Your task to perform on an android device: When is my next meeting? Image 0: 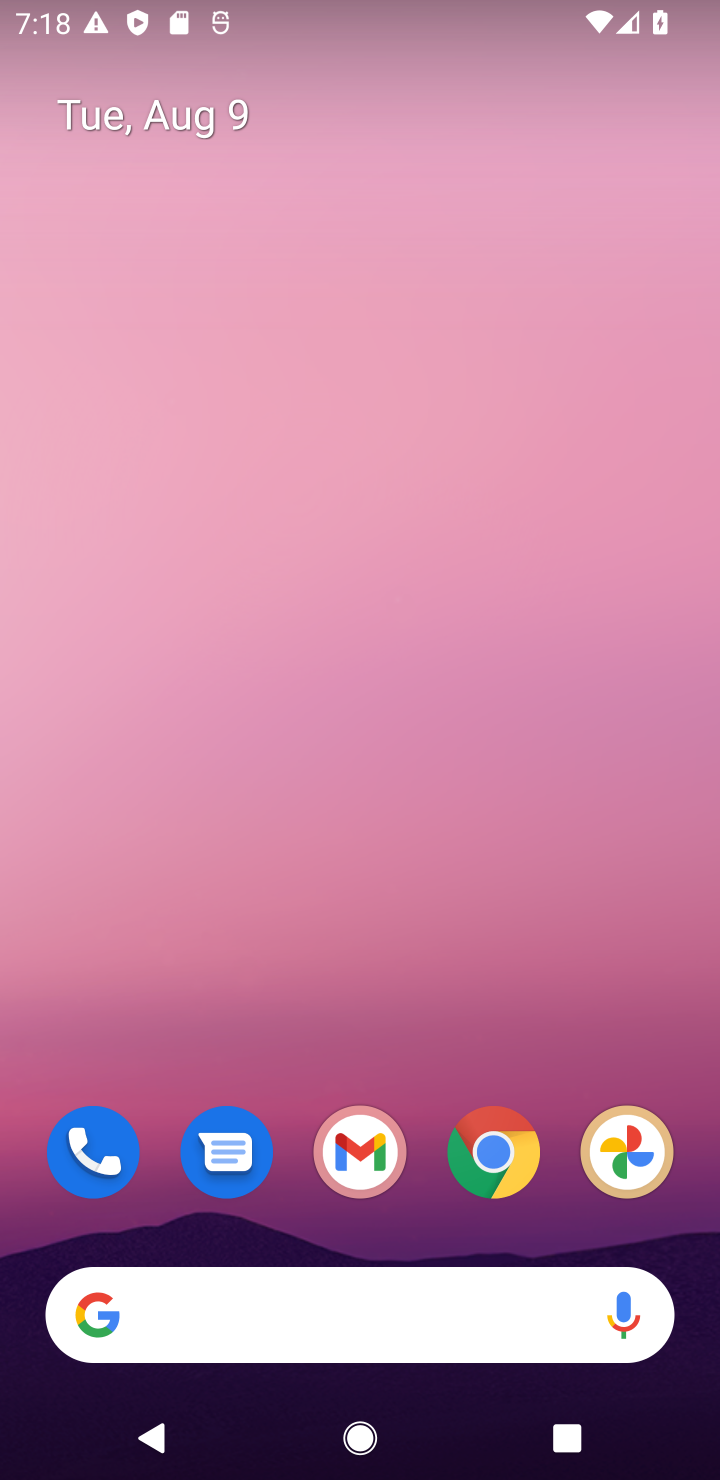
Step 0: click (134, 129)
Your task to perform on an android device: When is my next meeting? Image 1: 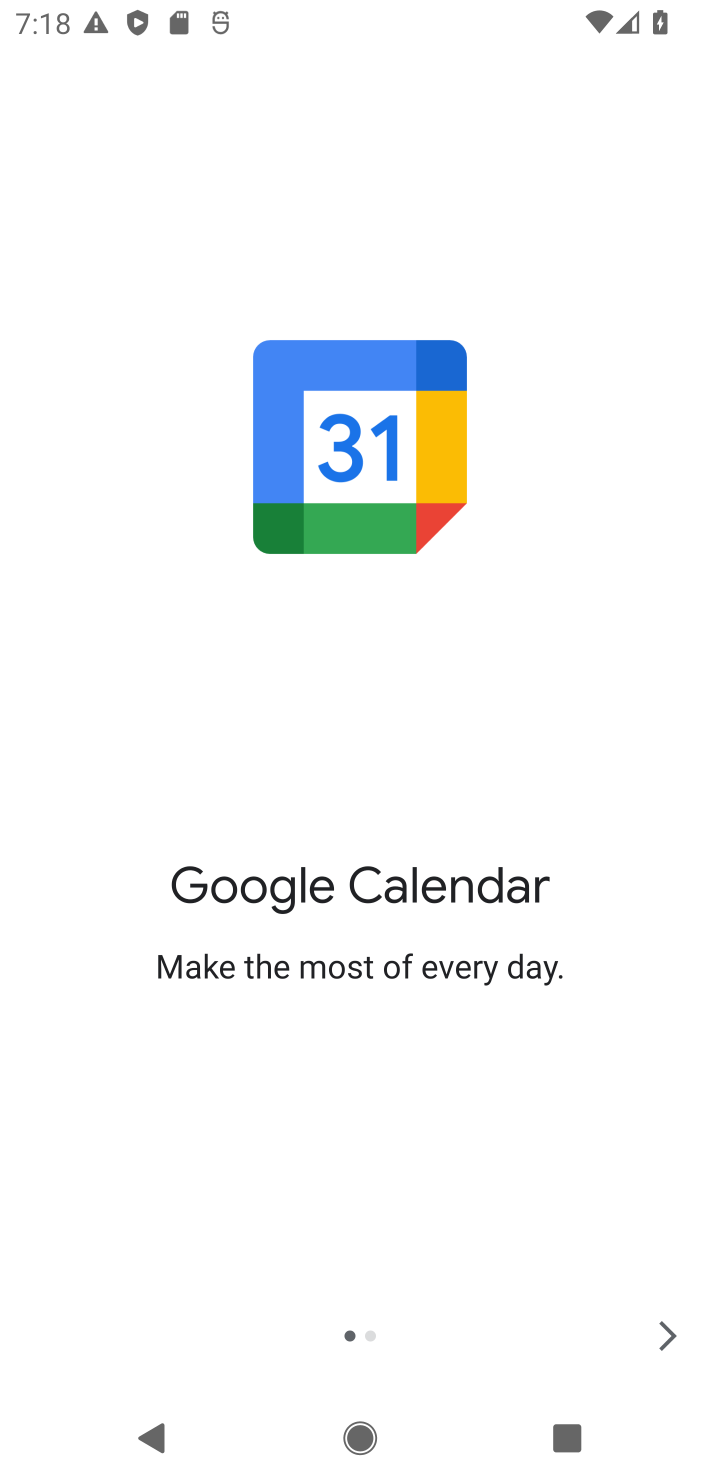
Step 1: click (670, 1332)
Your task to perform on an android device: When is my next meeting? Image 2: 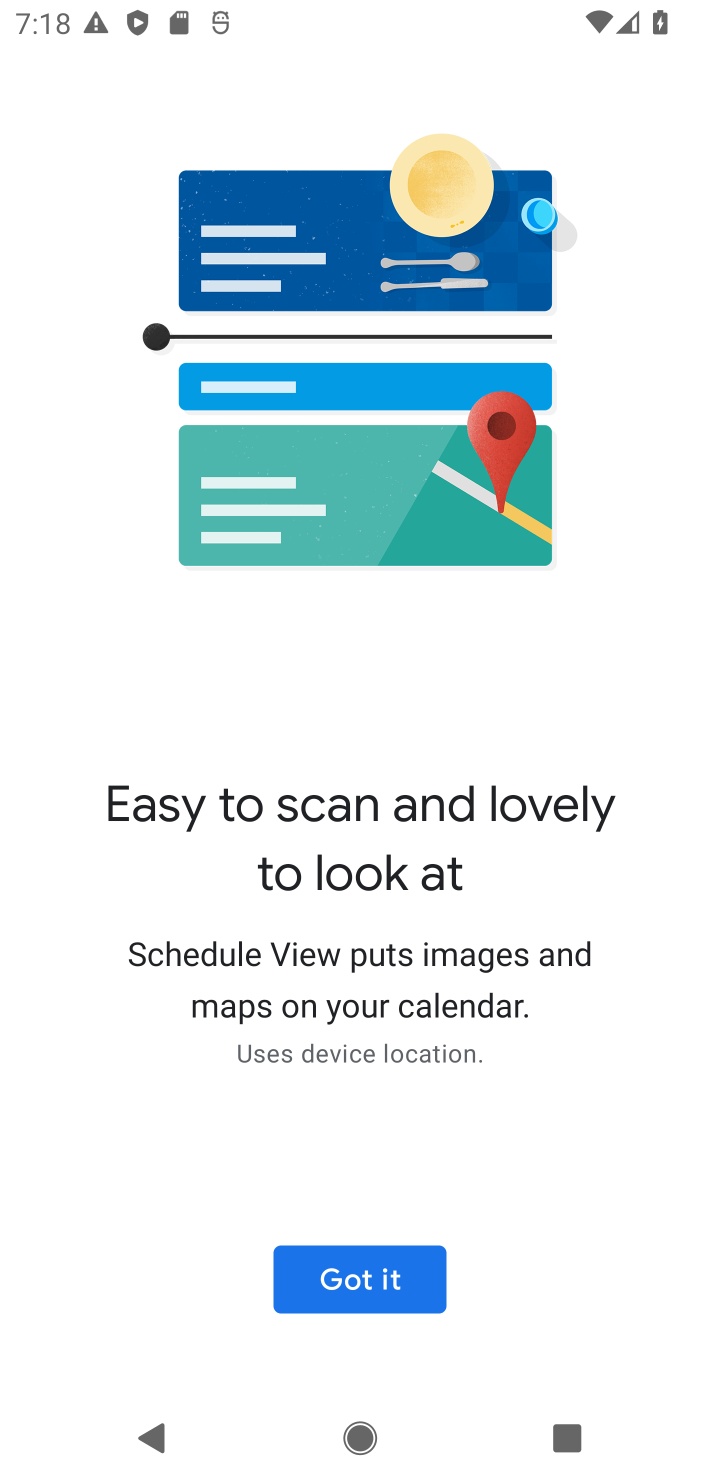
Step 2: click (404, 1285)
Your task to perform on an android device: When is my next meeting? Image 3: 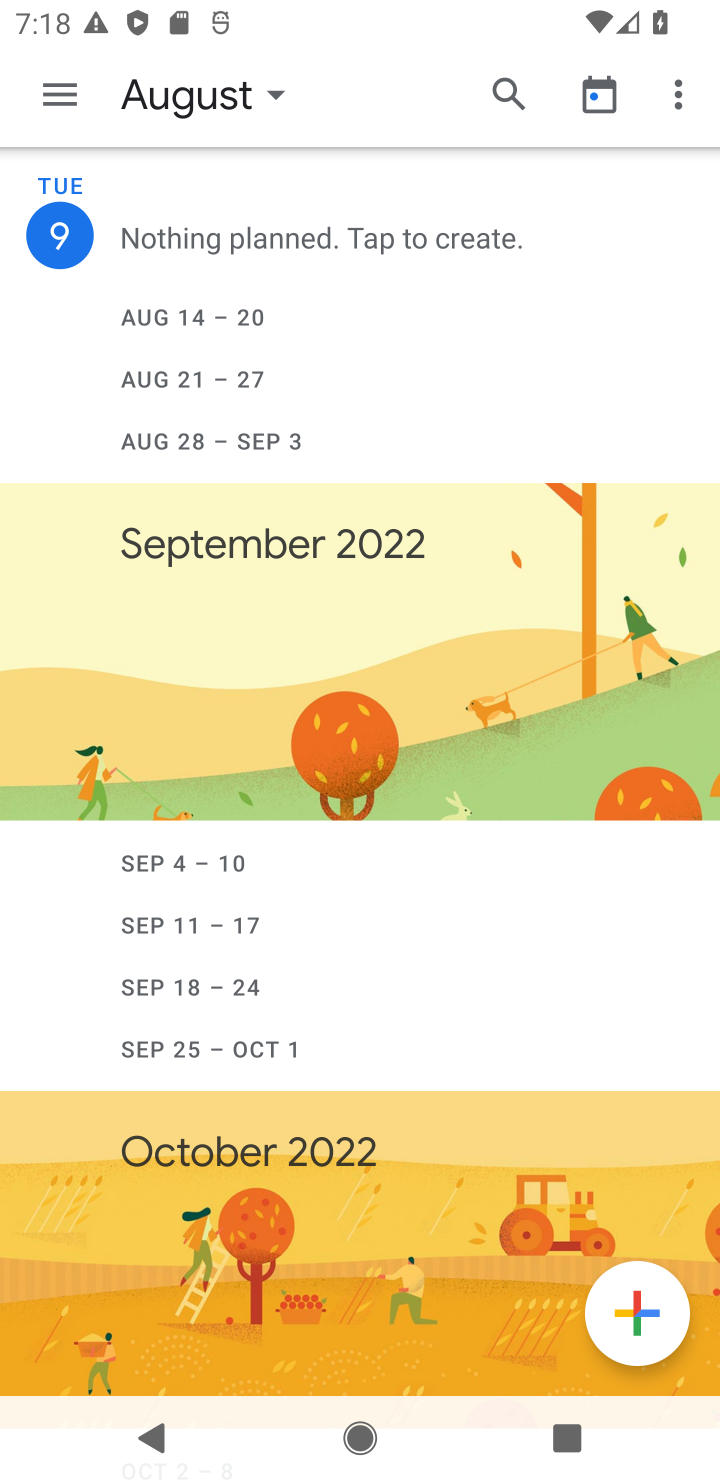
Step 3: task complete